Your task to perform on an android device: Open the phone app and click the voicemail tab. Image 0: 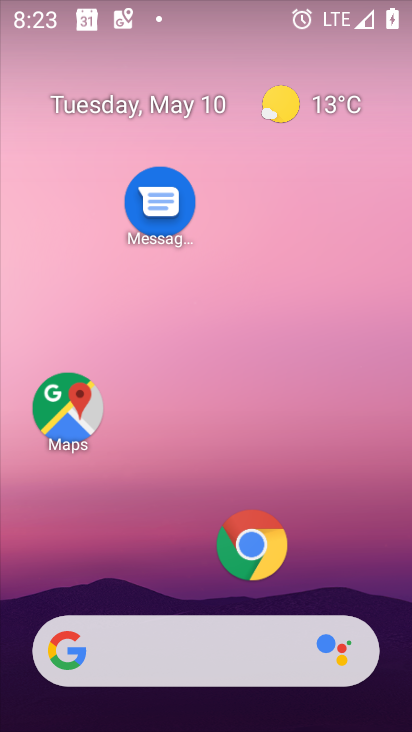
Step 0: drag from (191, 575) to (213, 50)
Your task to perform on an android device: Open the phone app and click the voicemail tab. Image 1: 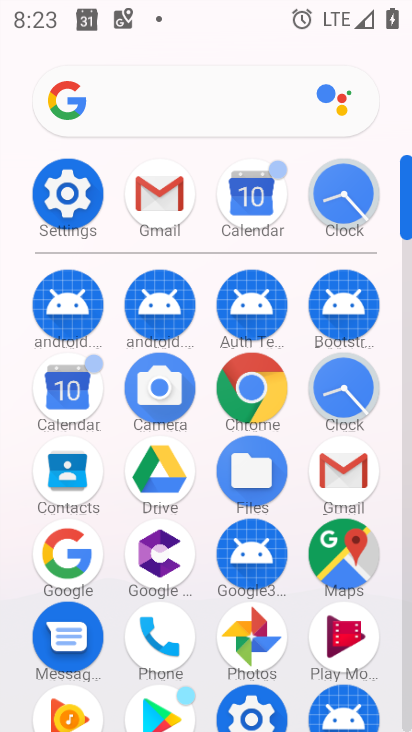
Step 1: click (162, 613)
Your task to perform on an android device: Open the phone app and click the voicemail tab. Image 2: 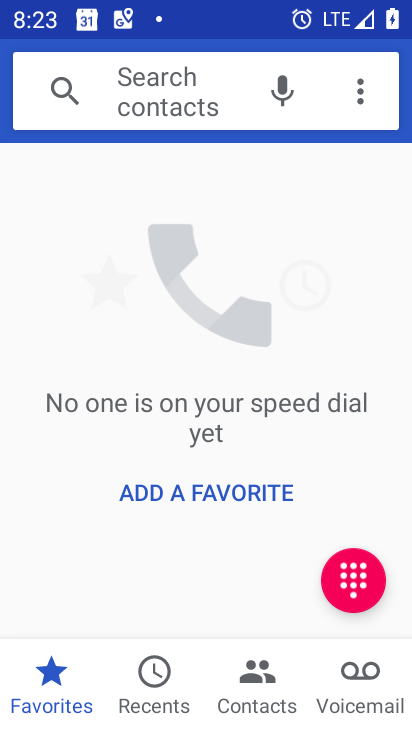
Step 2: click (358, 660)
Your task to perform on an android device: Open the phone app and click the voicemail tab. Image 3: 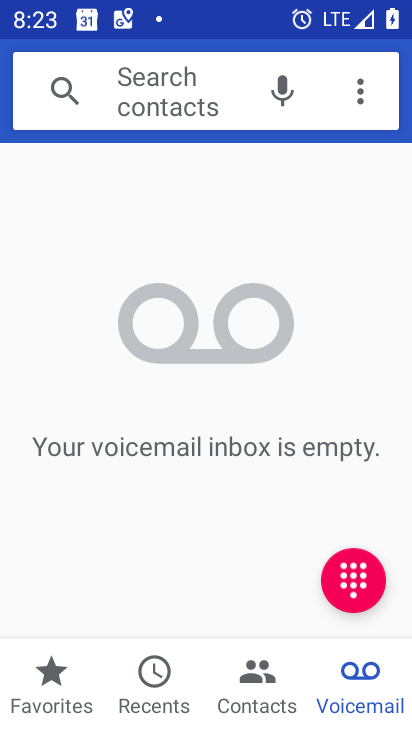
Step 3: task complete